Your task to perform on an android device: Is it going to rain tomorrow? Image 0: 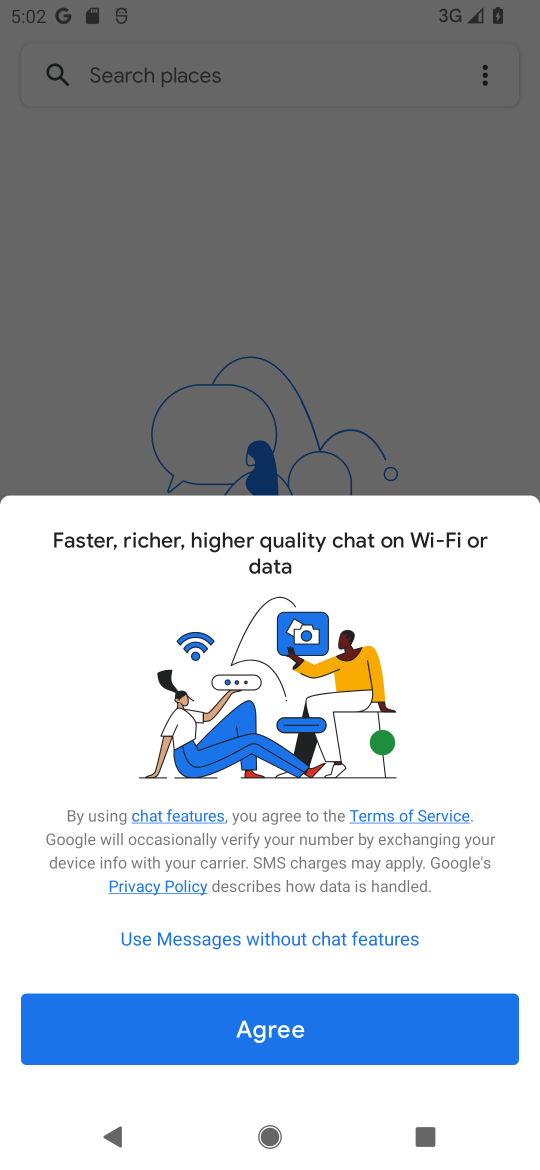
Step 0: press back button
Your task to perform on an android device: Is it going to rain tomorrow? Image 1: 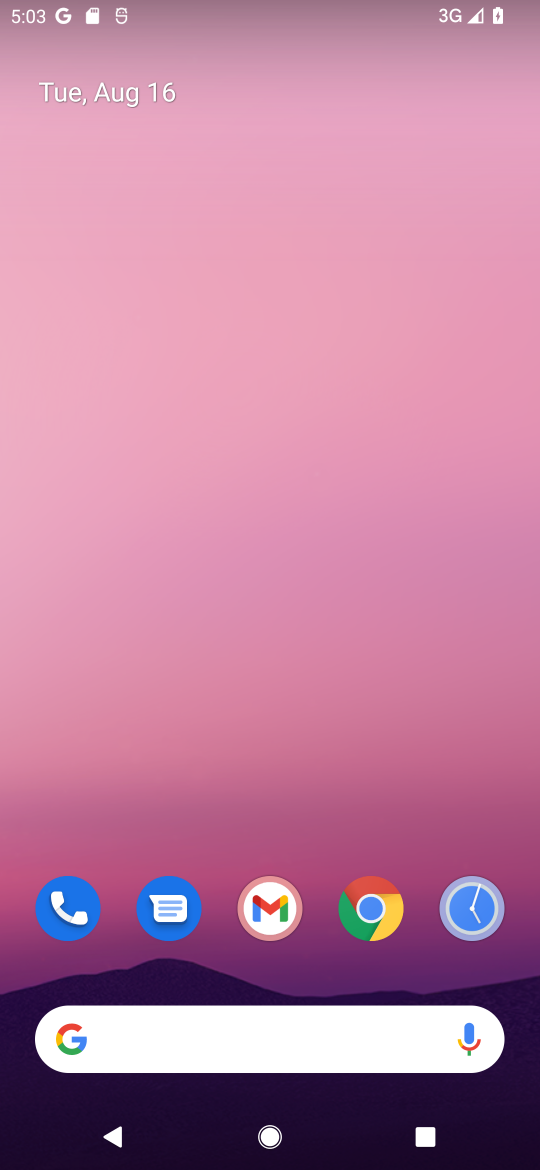
Step 1: click (261, 1044)
Your task to perform on an android device: Is it going to rain tomorrow? Image 2: 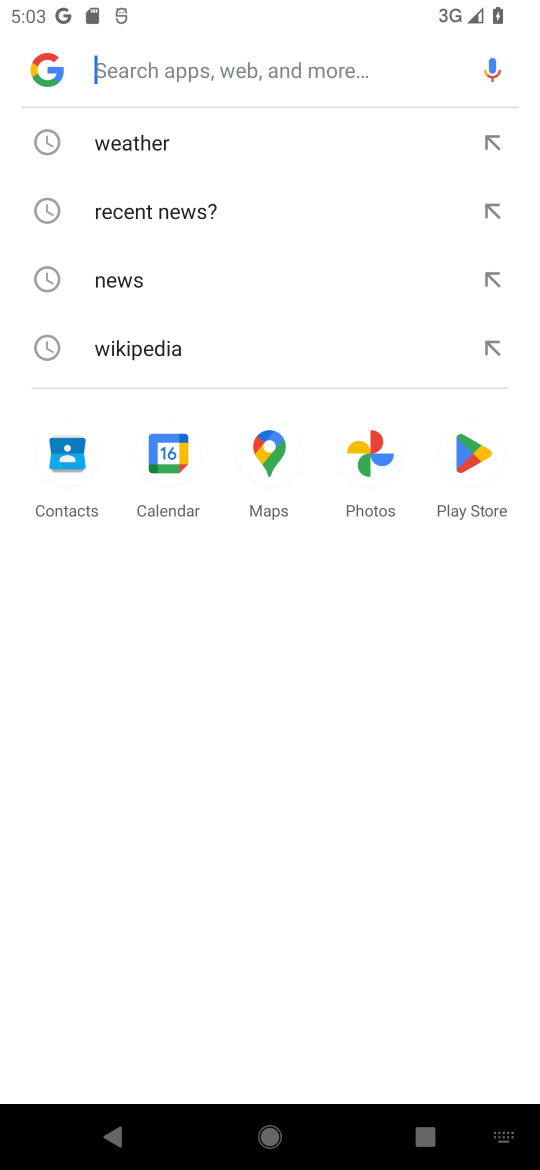
Step 2: click (173, 116)
Your task to perform on an android device: Is it going to rain tomorrow? Image 3: 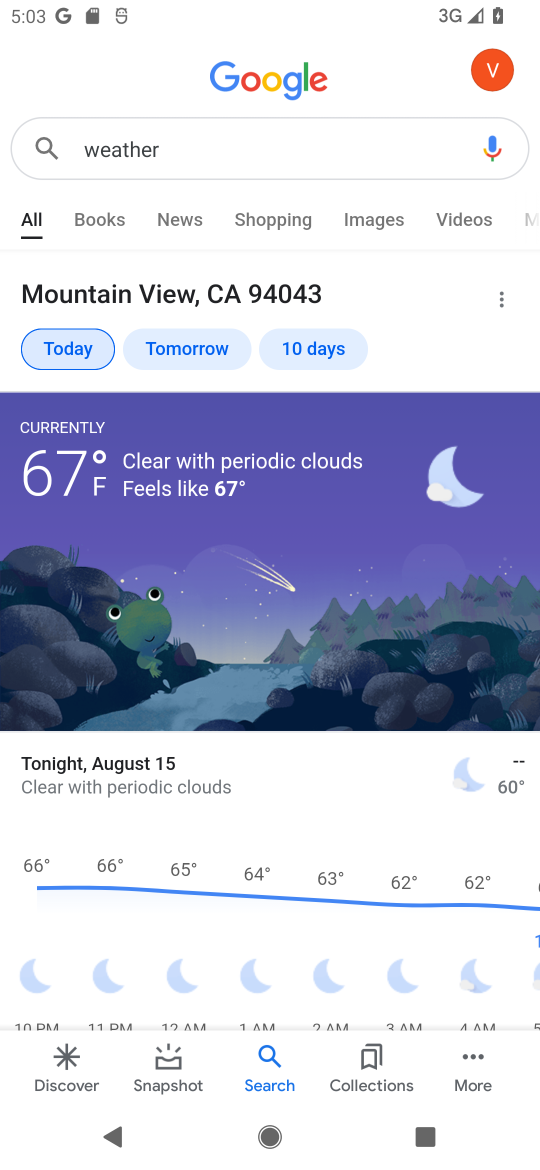
Step 3: click (187, 339)
Your task to perform on an android device: Is it going to rain tomorrow? Image 4: 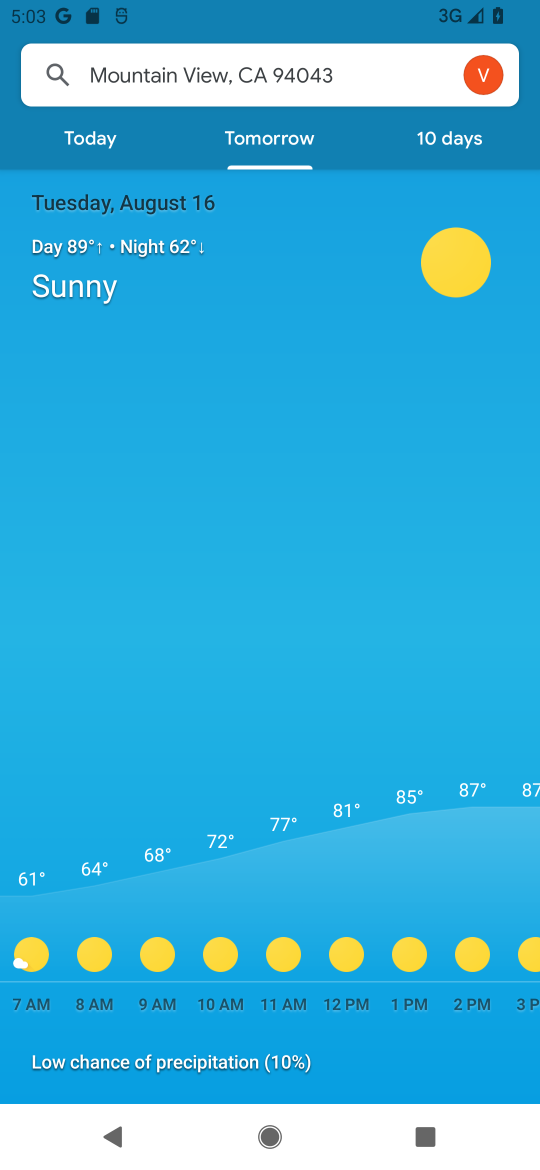
Step 4: task complete